Your task to perform on an android device: choose inbox layout in the gmail app Image 0: 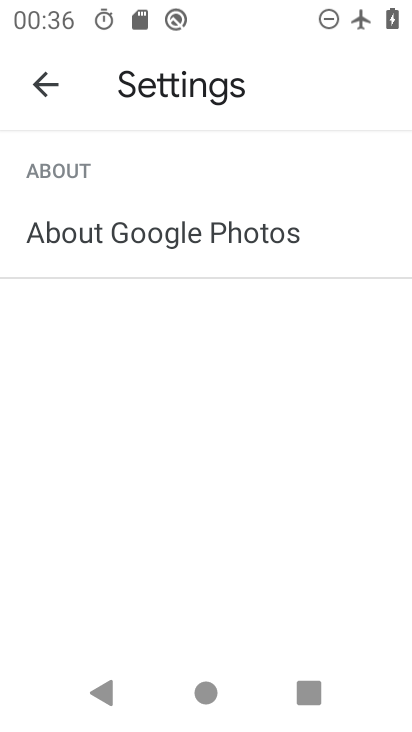
Step 0: press home button
Your task to perform on an android device: choose inbox layout in the gmail app Image 1: 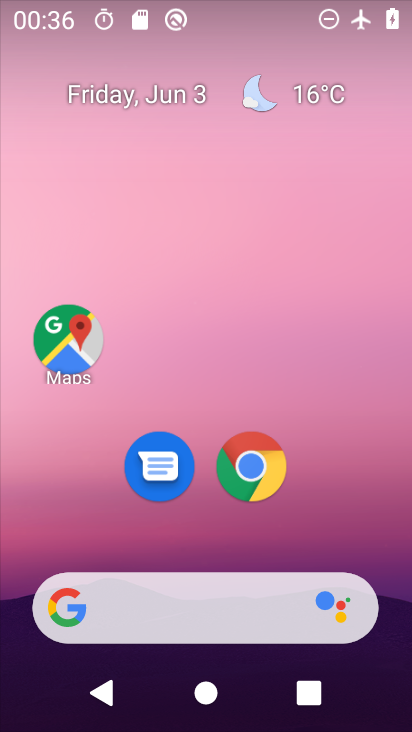
Step 1: drag from (194, 541) to (195, 211)
Your task to perform on an android device: choose inbox layout in the gmail app Image 2: 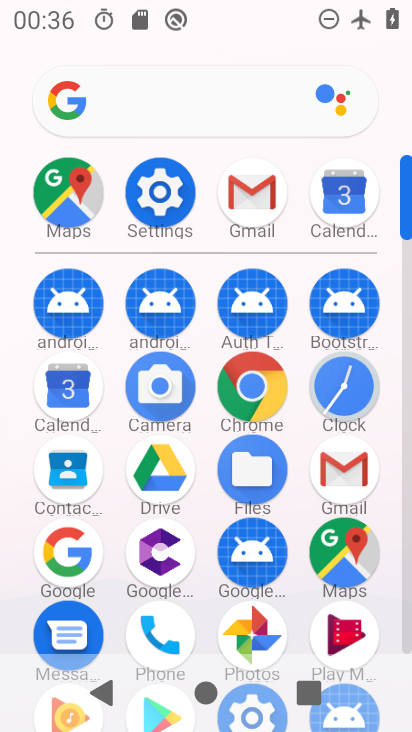
Step 2: click (244, 213)
Your task to perform on an android device: choose inbox layout in the gmail app Image 3: 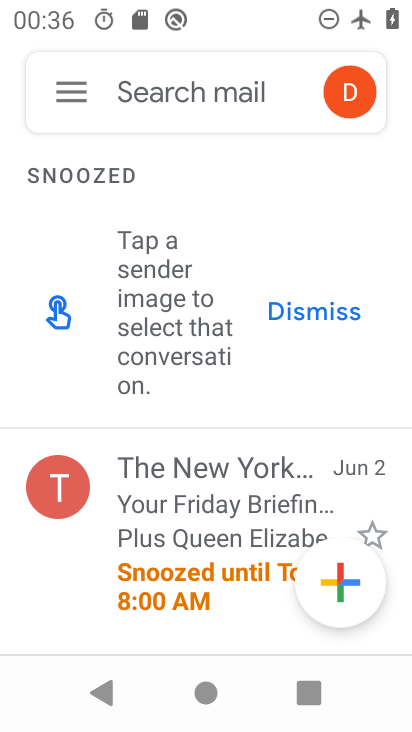
Step 3: click (84, 102)
Your task to perform on an android device: choose inbox layout in the gmail app Image 4: 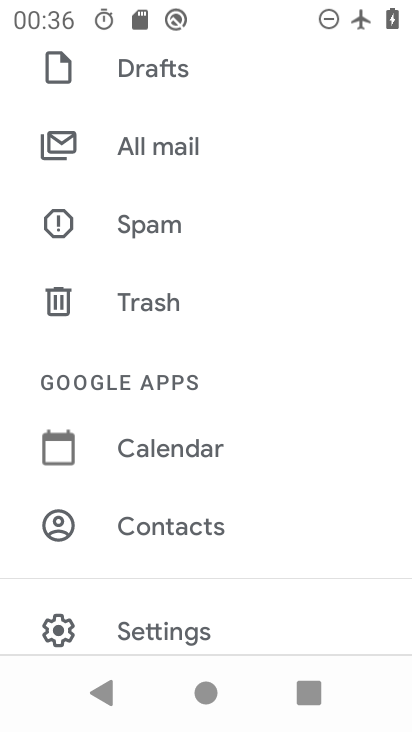
Step 4: click (201, 634)
Your task to perform on an android device: choose inbox layout in the gmail app Image 5: 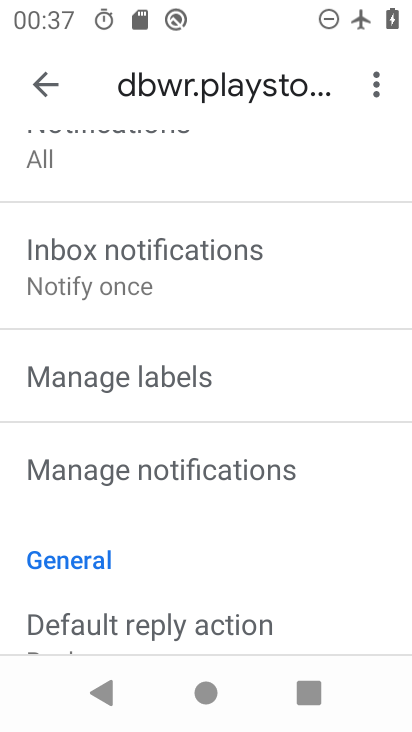
Step 5: drag from (200, 274) to (195, 560)
Your task to perform on an android device: choose inbox layout in the gmail app Image 6: 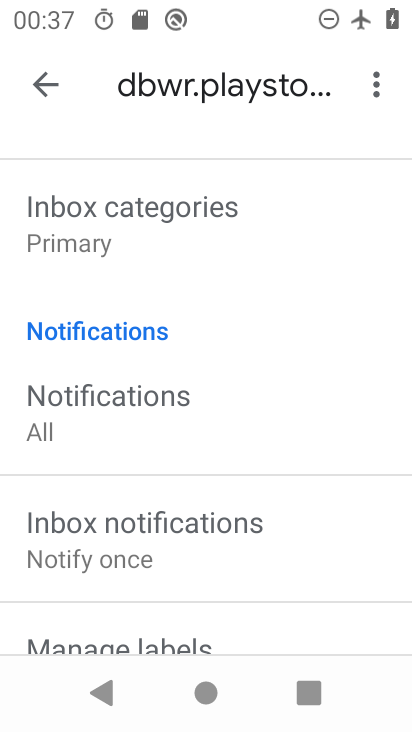
Step 6: click (108, 222)
Your task to perform on an android device: choose inbox layout in the gmail app Image 7: 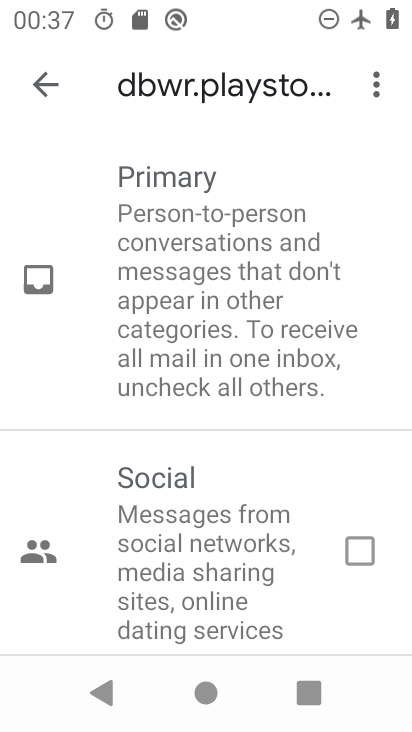
Step 7: click (47, 76)
Your task to perform on an android device: choose inbox layout in the gmail app Image 8: 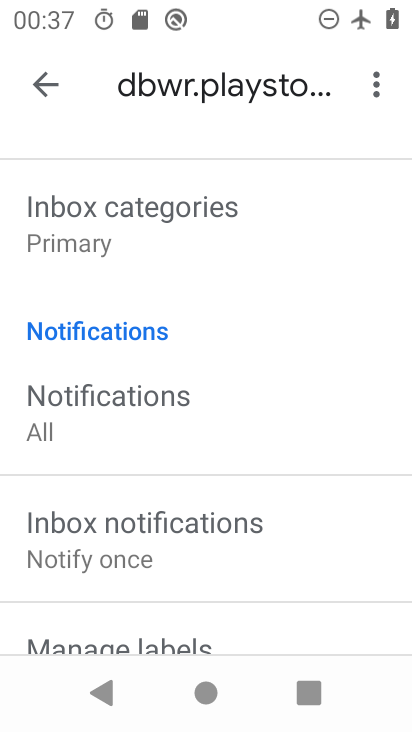
Step 8: drag from (108, 231) to (111, 371)
Your task to perform on an android device: choose inbox layout in the gmail app Image 9: 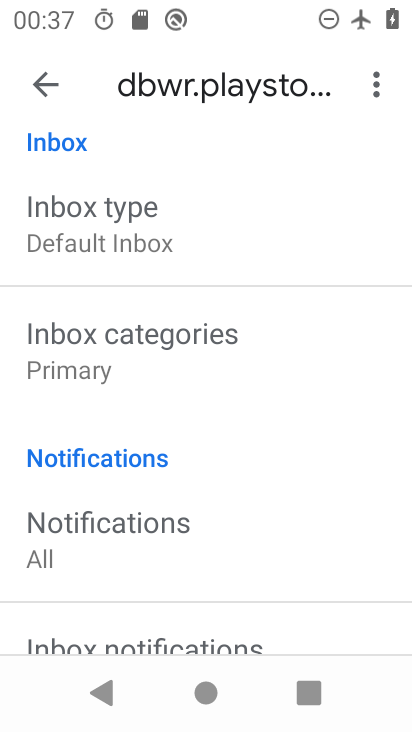
Step 9: click (92, 236)
Your task to perform on an android device: choose inbox layout in the gmail app Image 10: 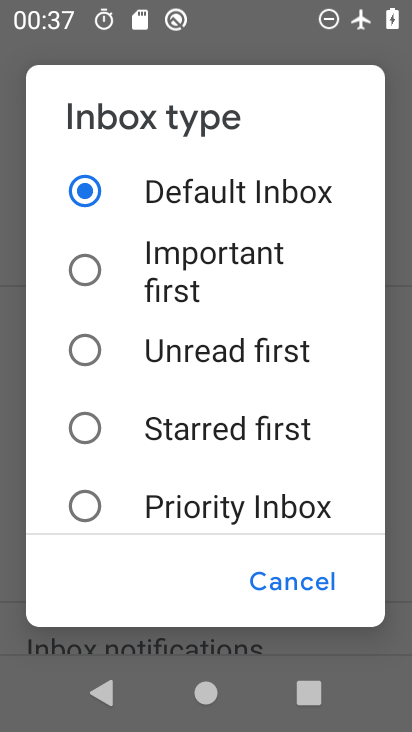
Step 10: click (183, 499)
Your task to perform on an android device: choose inbox layout in the gmail app Image 11: 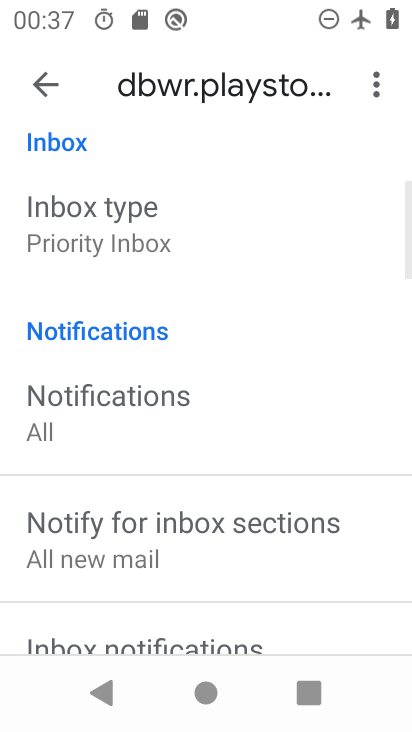
Step 11: task complete